Your task to perform on an android device: Open calendar and show me the third week of next month Image 0: 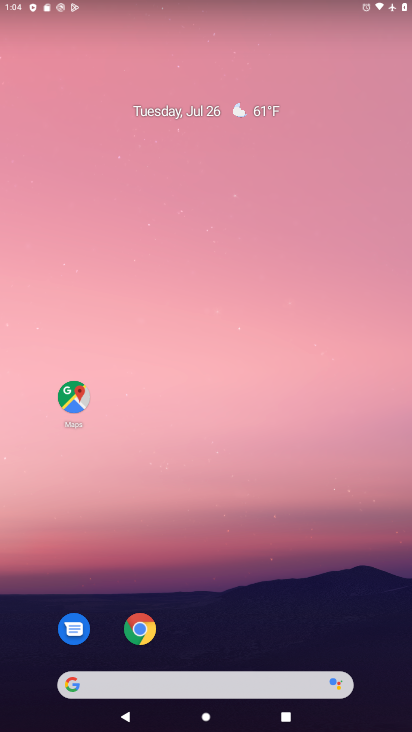
Step 0: drag from (250, 651) to (410, 252)
Your task to perform on an android device: Open calendar and show me the third week of next month Image 1: 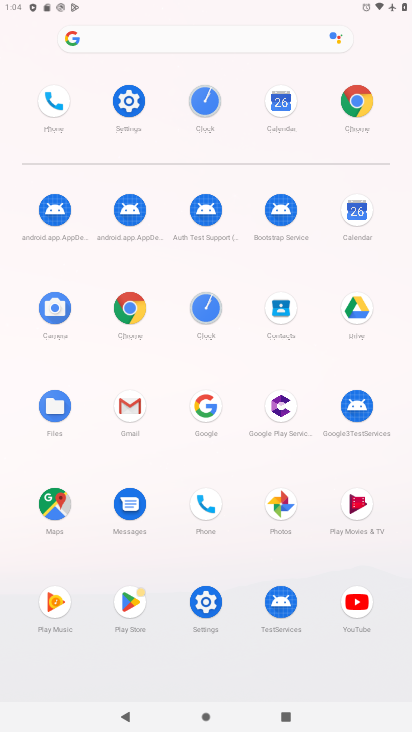
Step 1: click (355, 208)
Your task to perform on an android device: Open calendar and show me the third week of next month Image 2: 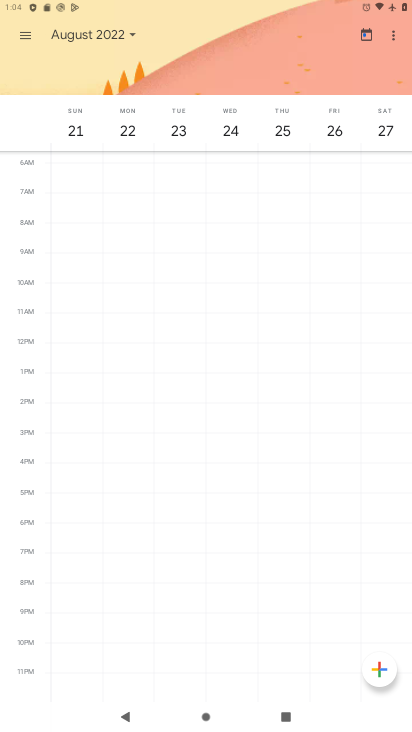
Step 2: task complete